Your task to perform on an android device: turn off wifi Image 0: 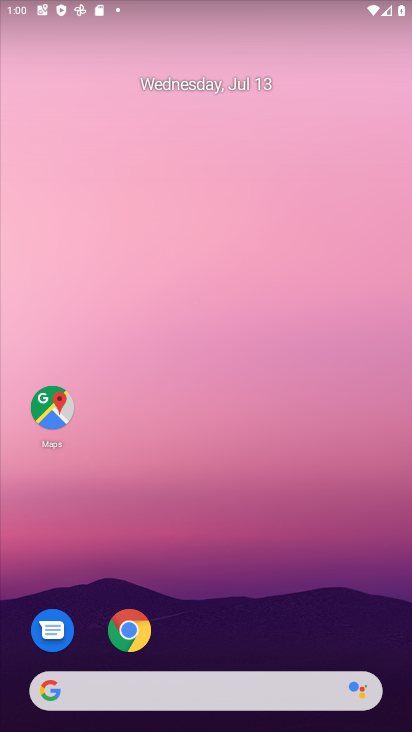
Step 0: drag from (199, 17) to (206, 617)
Your task to perform on an android device: turn off wifi Image 1: 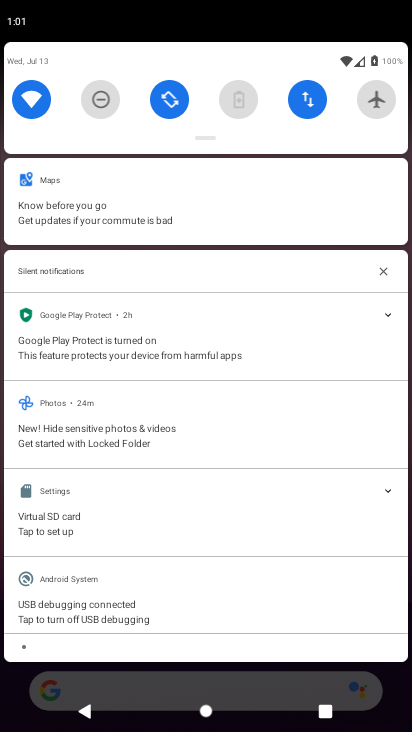
Step 1: task complete